Your task to perform on an android device: Open the map Image 0: 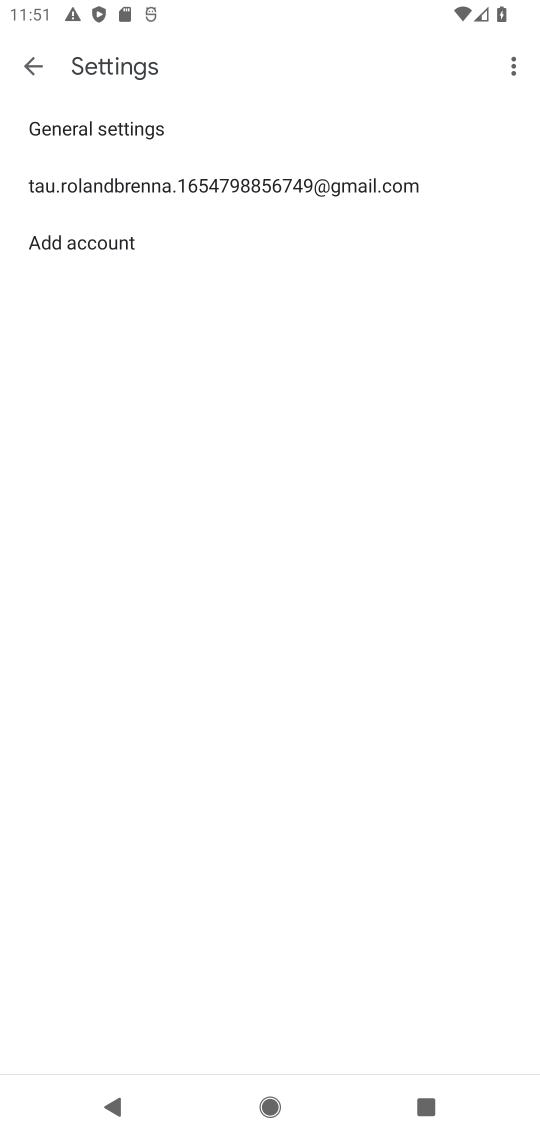
Step 0: drag from (337, 950) to (328, 612)
Your task to perform on an android device: Open the map Image 1: 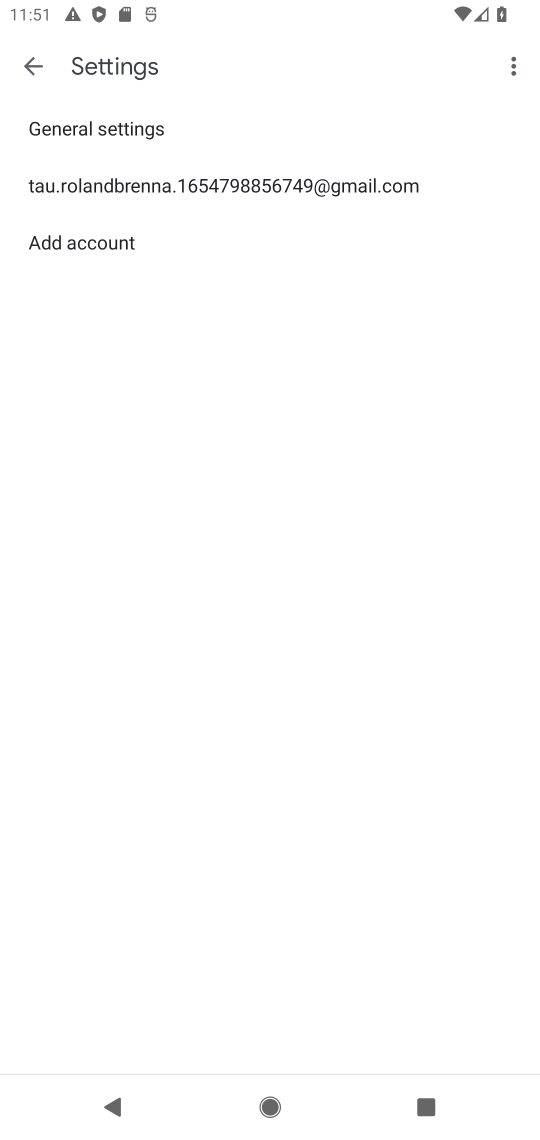
Step 1: drag from (281, 858) to (272, 403)
Your task to perform on an android device: Open the map Image 2: 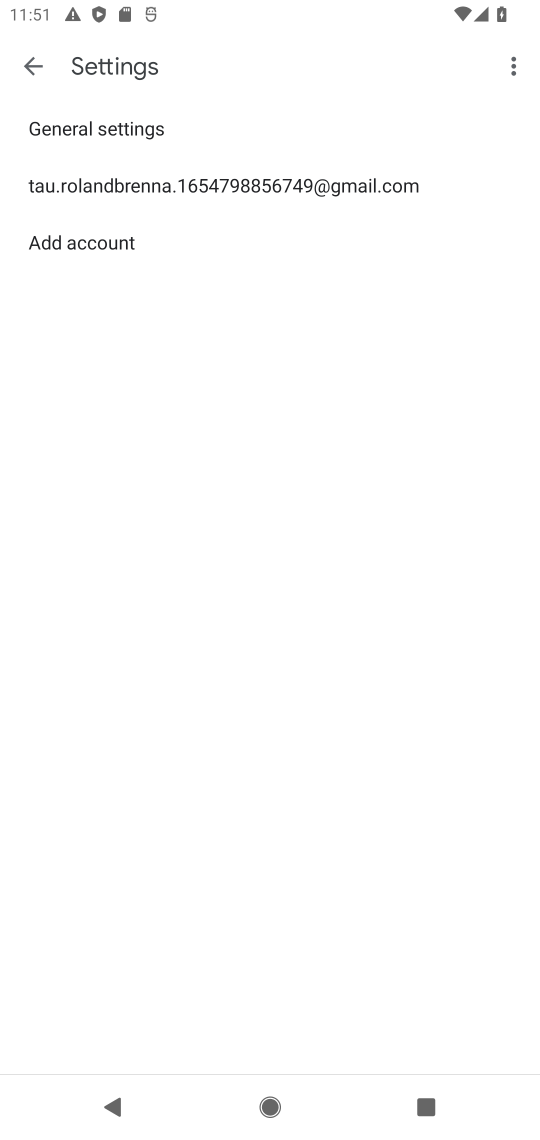
Step 2: drag from (211, 941) to (306, 279)
Your task to perform on an android device: Open the map Image 3: 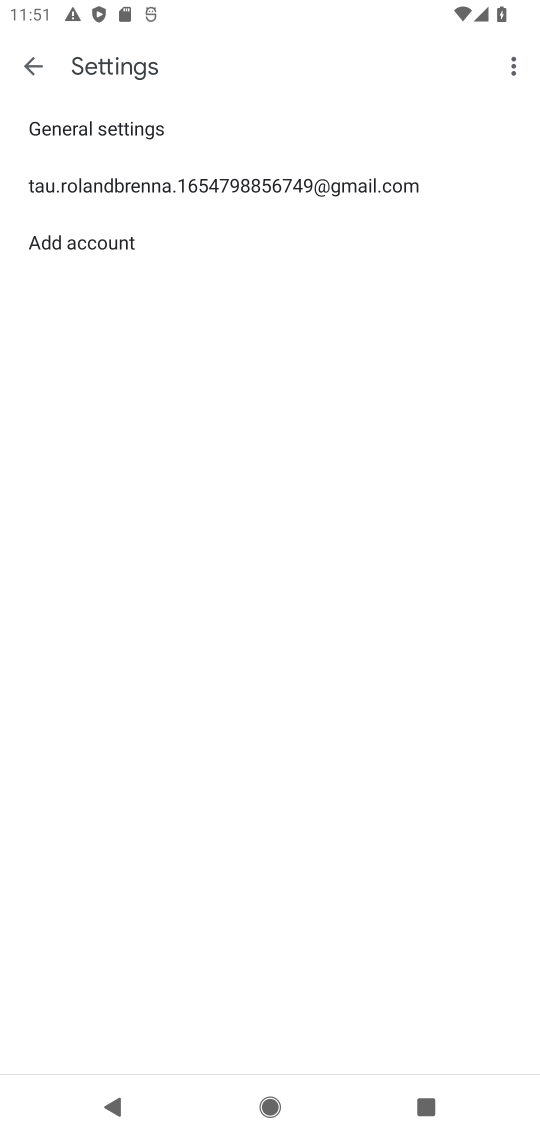
Step 3: drag from (268, 930) to (292, 284)
Your task to perform on an android device: Open the map Image 4: 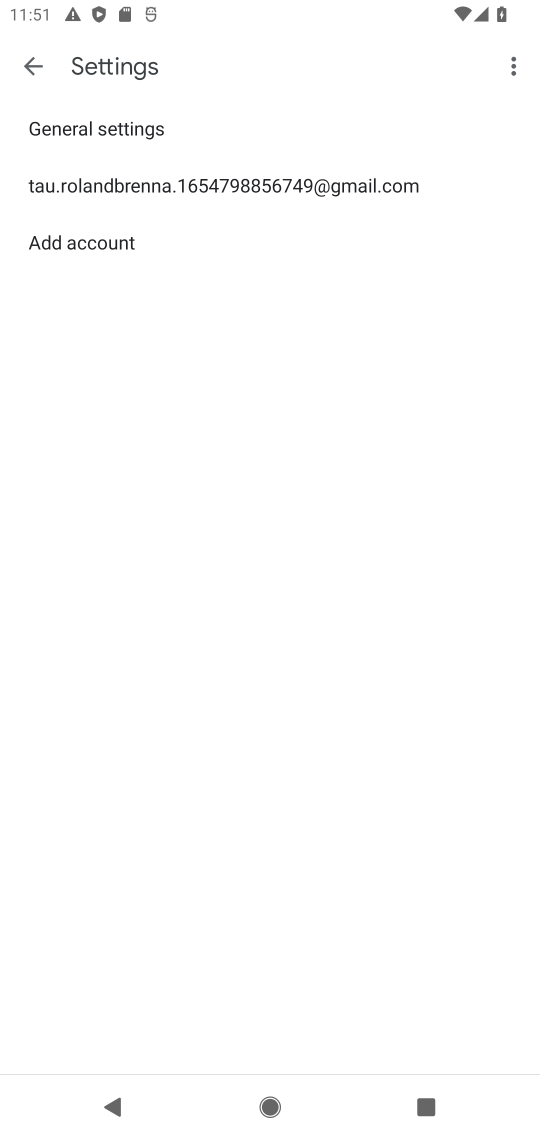
Step 4: drag from (312, 722) to (310, 225)
Your task to perform on an android device: Open the map Image 5: 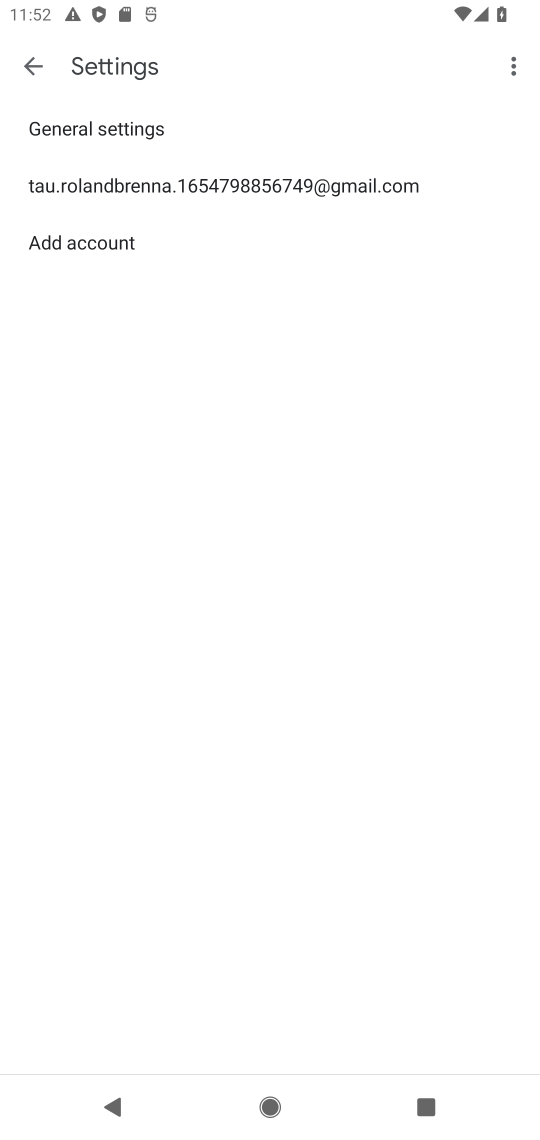
Step 5: drag from (215, 217) to (221, 853)
Your task to perform on an android device: Open the map Image 6: 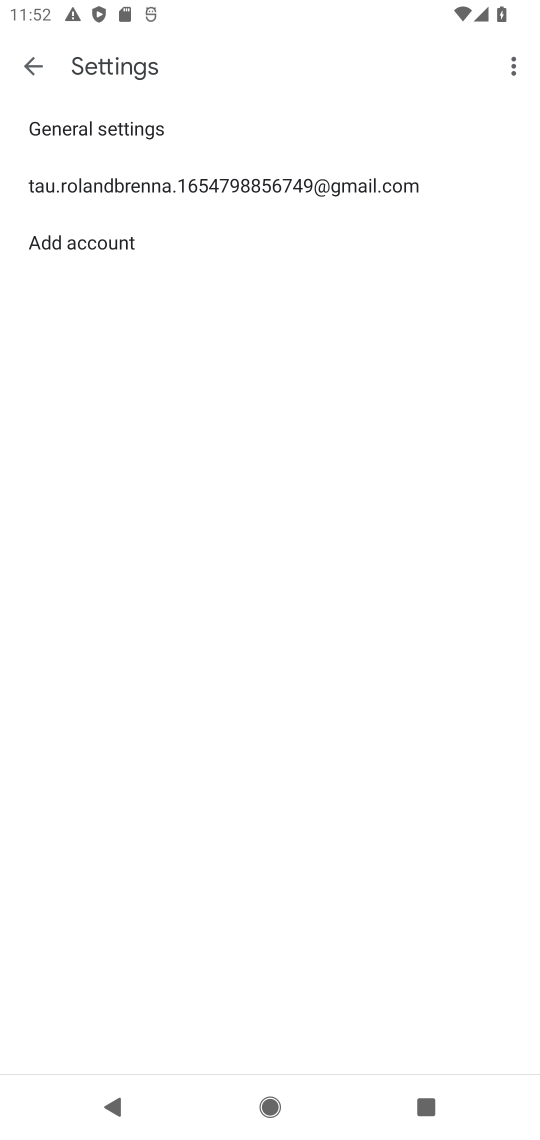
Step 6: press home button
Your task to perform on an android device: Open the map Image 7: 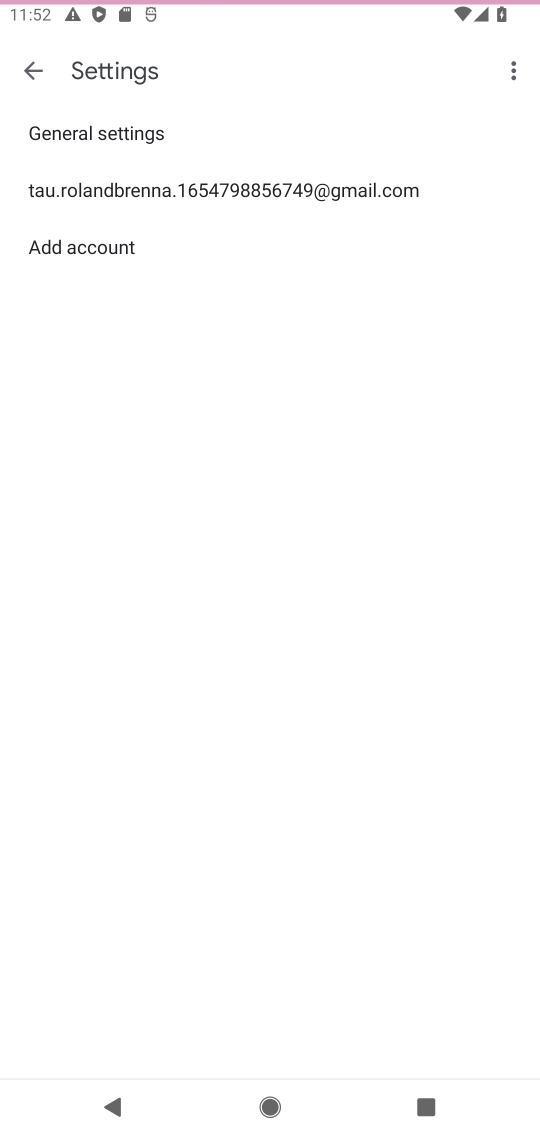
Step 7: drag from (194, 893) to (374, 271)
Your task to perform on an android device: Open the map Image 8: 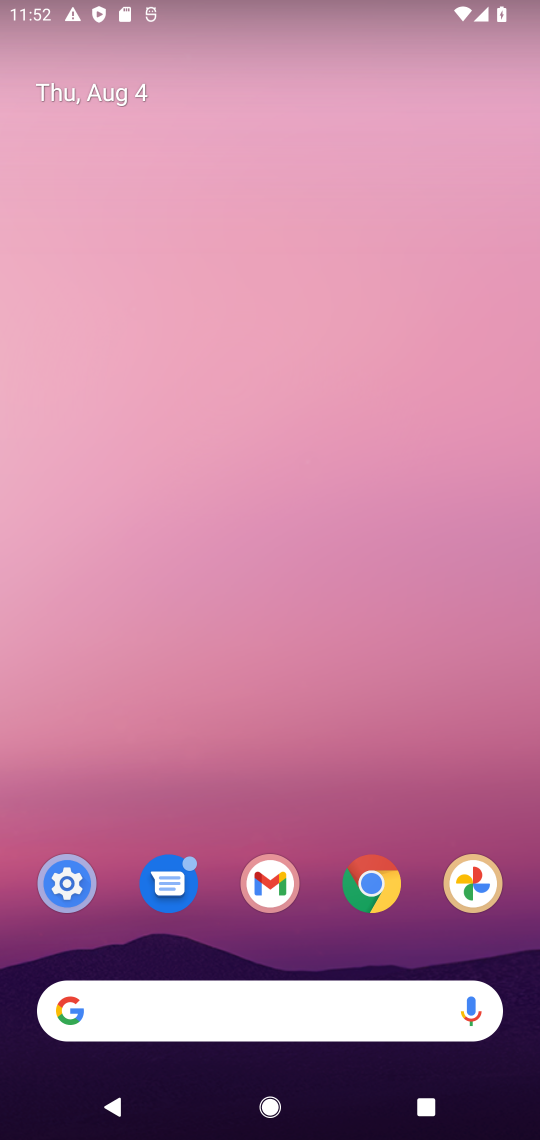
Step 8: drag from (247, 916) to (391, 280)
Your task to perform on an android device: Open the map Image 9: 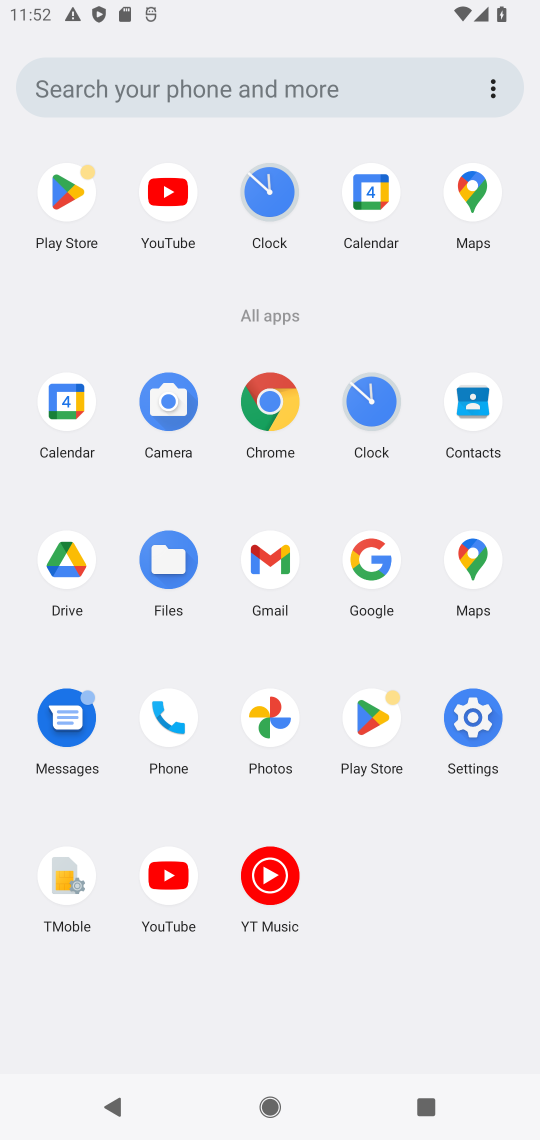
Step 9: click (468, 564)
Your task to perform on an android device: Open the map Image 10: 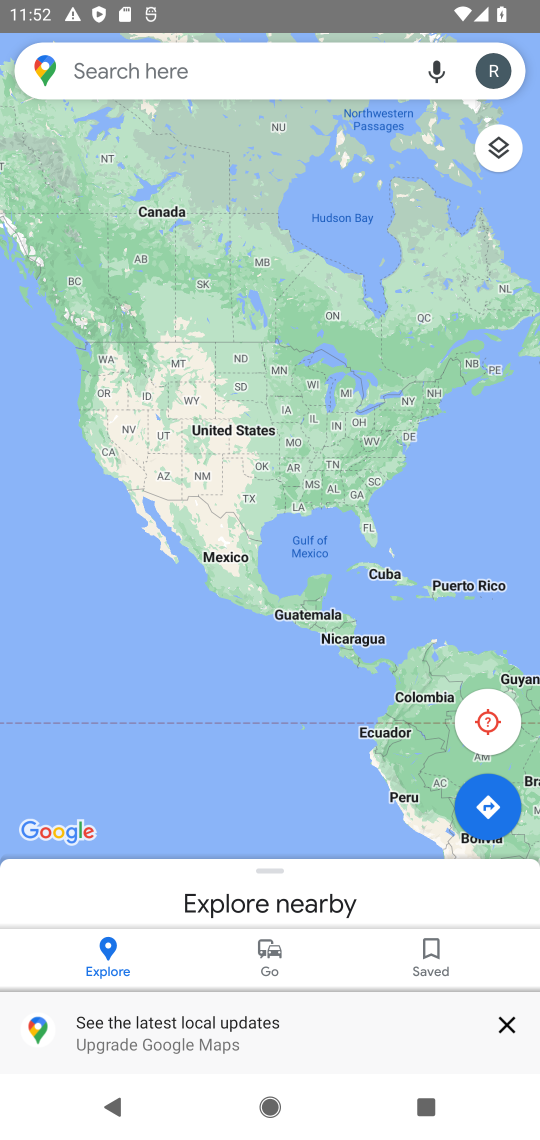
Step 10: task complete